Your task to perform on an android device: clear history in the chrome app Image 0: 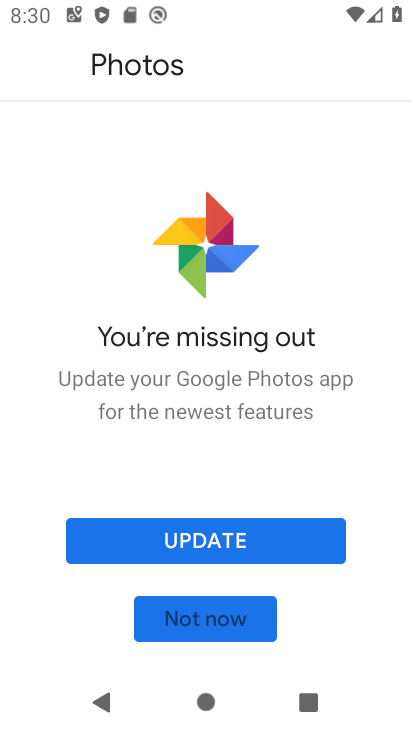
Step 0: press back button
Your task to perform on an android device: clear history in the chrome app Image 1: 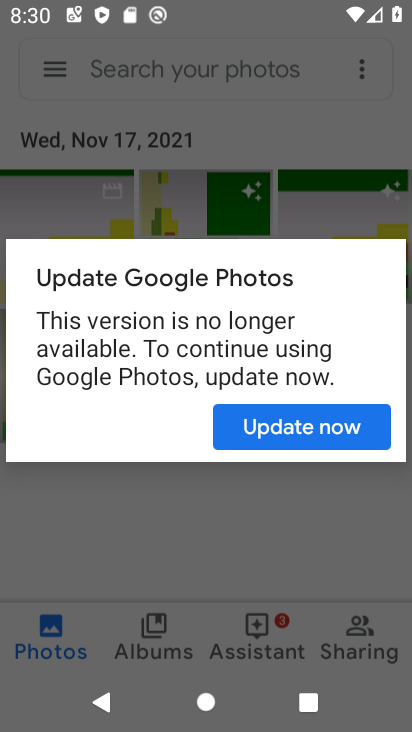
Step 1: press home button
Your task to perform on an android device: clear history in the chrome app Image 2: 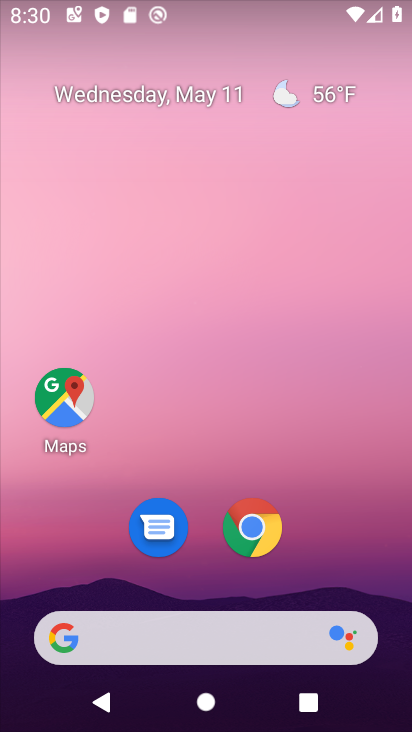
Step 2: click (263, 537)
Your task to perform on an android device: clear history in the chrome app Image 3: 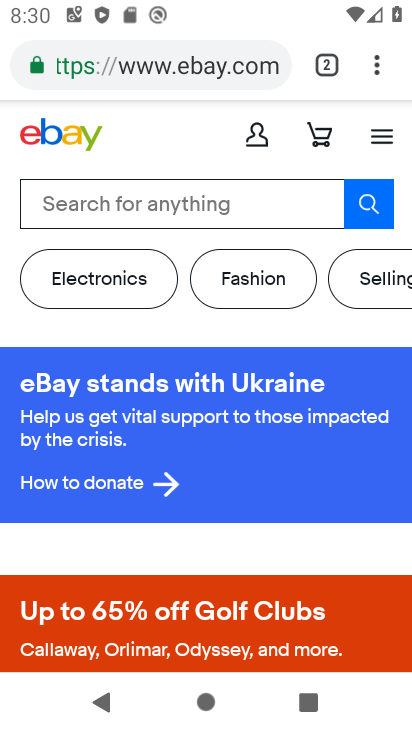
Step 3: drag from (382, 76) to (333, 344)
Your task to perform on an android device: clear history in the chrome app Image 4: 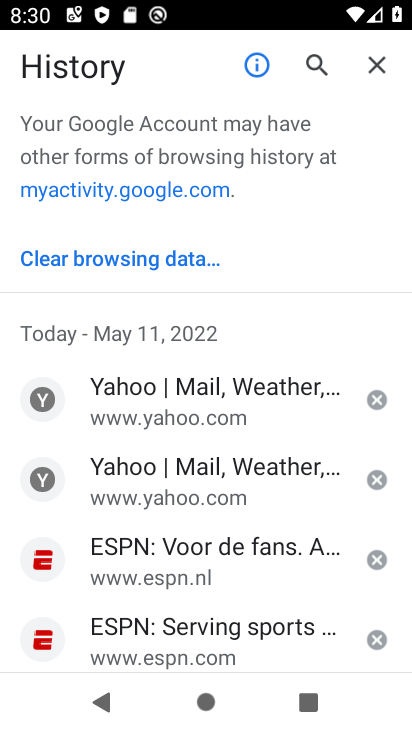
Step 4: click (168, 257)
Your task to perform on an android device: clear history in the chrome app Image 5: 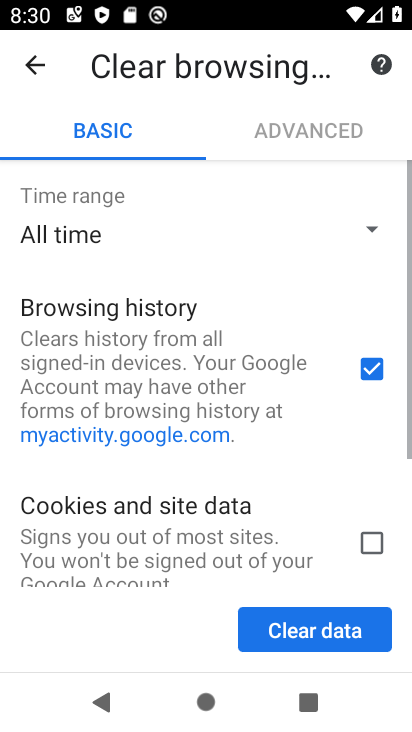
Step 5: click (328, 644)
Your task to perform on an android device: clear history in the chrome app Image 6: 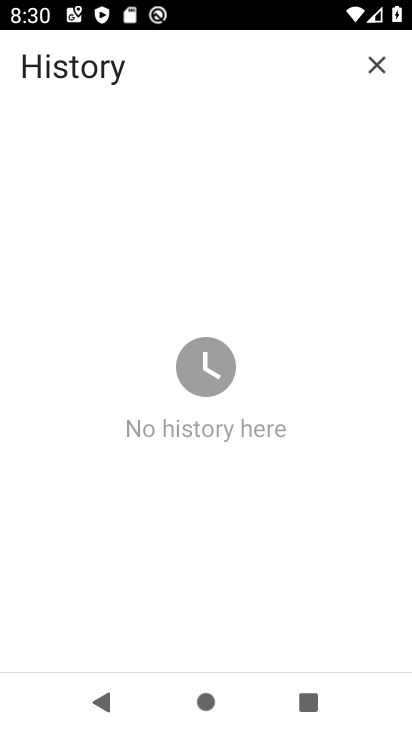
Step 6: task complete